Your task to perform on an android device: Open my contact list Image 0: 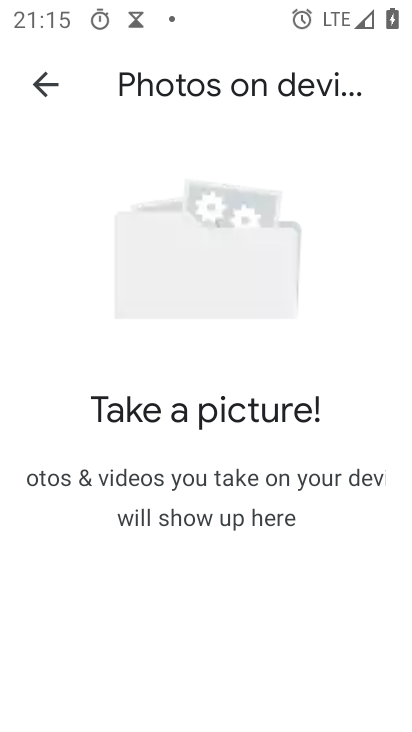
Step 0: press home button
Your task to perform on an android device: Open my contact list Image 1: 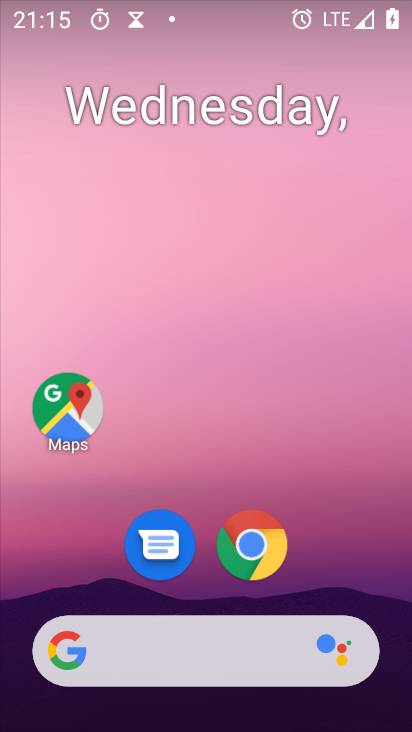
Step 1: drag from (181, 666) to (313, 236)
Your task to perform on an android device: Open my contact list Image 2: 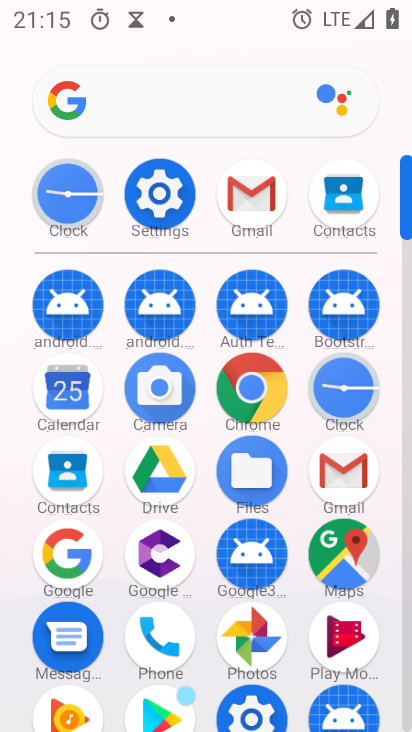
Step 2: click (79, 477)
Your task to perform on an android device: Open my contact list Image 3: 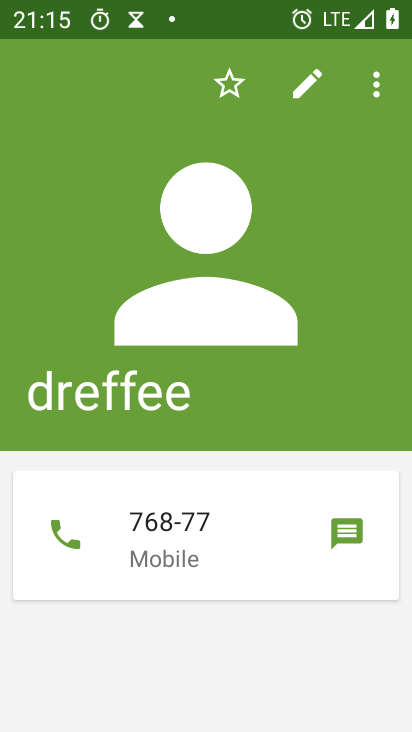
Step 3: task complete